Your task to perform on an android device: Open Youtube and go to "Your channel" Image 0: 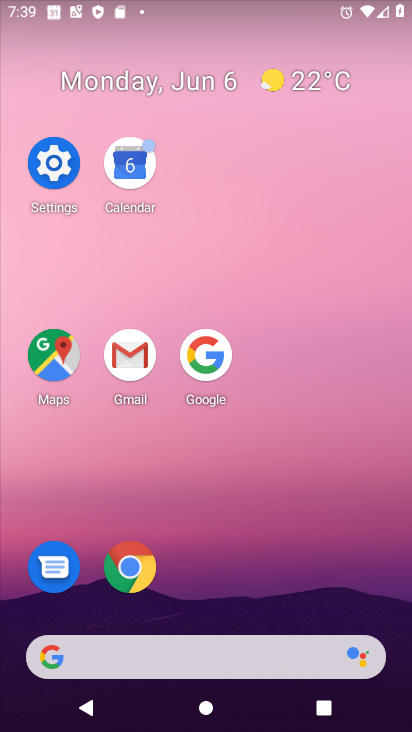
Step 0: drag from (321, 501) to (247, 148)
Your task to perform on an android device: Open Youtube and go to "Your channel" Image 1: 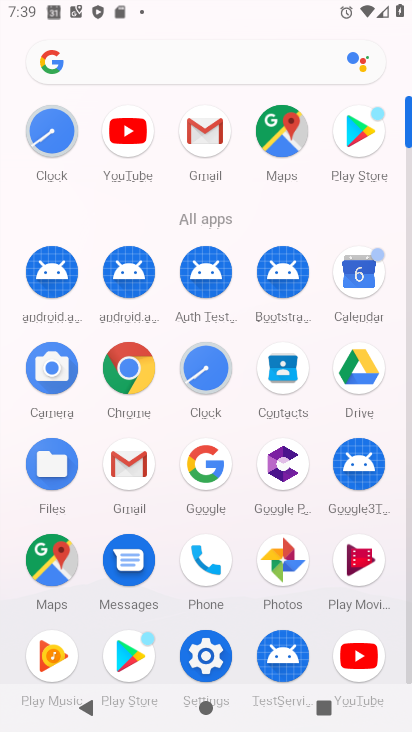
Step 1: click (355, 651)
Your task to perform on an android device: Open Youtube and go to "Your channel" Image 2: 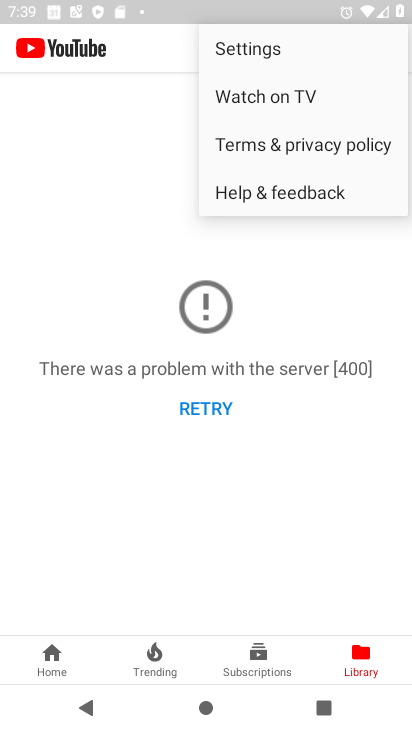
Step 2: click (381, 511)
Your task to perform on an android device: Open Youtube and go to "Your channel" Image 3: 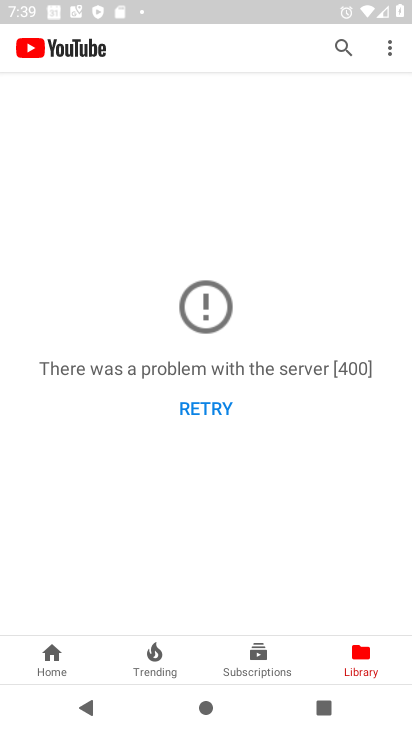
Step 3: task complete